Your task to perform on an android device: Play the last video I watched on Youtube Image 0: 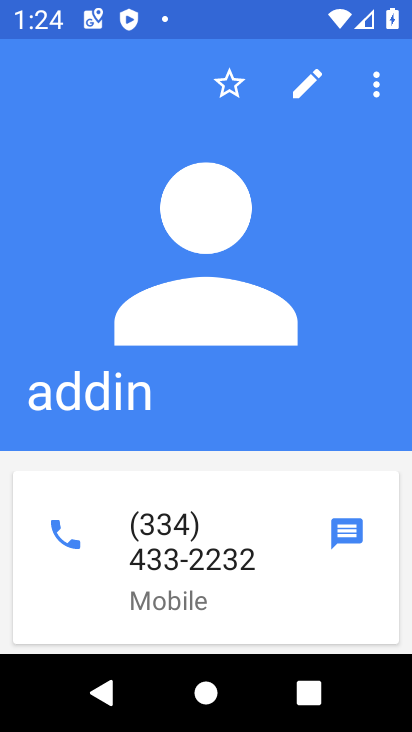
Step 0: press home button
Your task to perform on an android device: Play the last video I watched on Youtube Image 1: 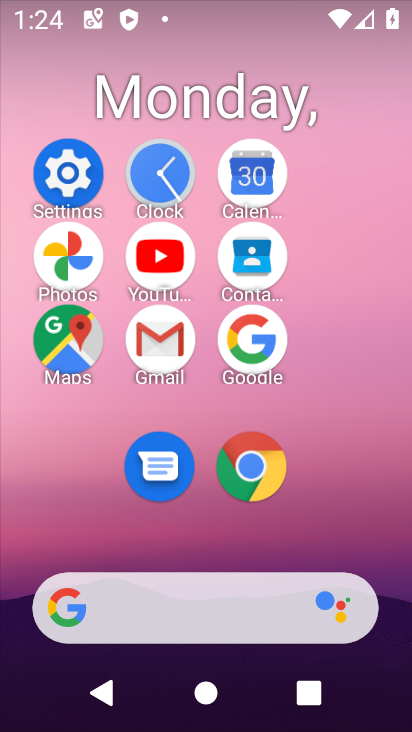
Step 1: click (157, 246)
Your task to perform on an android device: Play the last video I watched on Youtube Image 2: 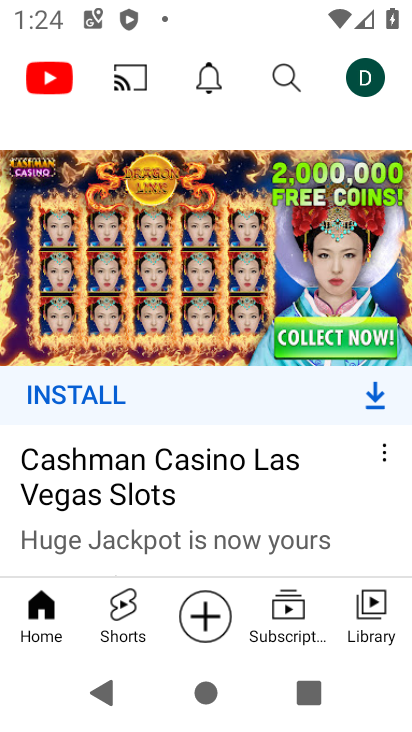
Step 2: click (386, 636)
Your task to perform on an android device: Play the last video I watched on Youtube Image 3: 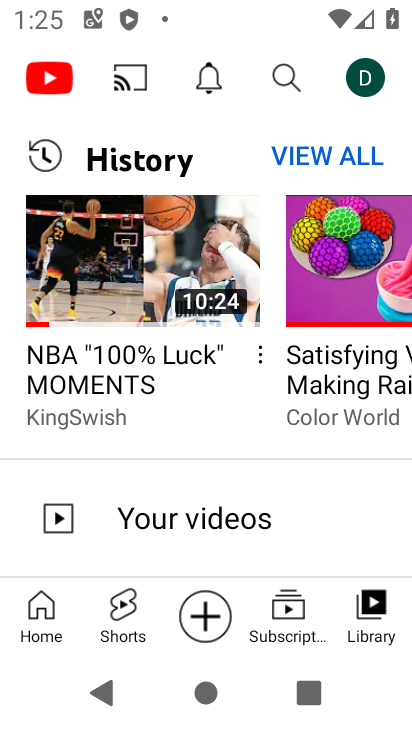
Step 3: drag from (271, 488) to (229, 350)
Your task to perform on an android device: Play the last video I watched on Youtube Image 4: 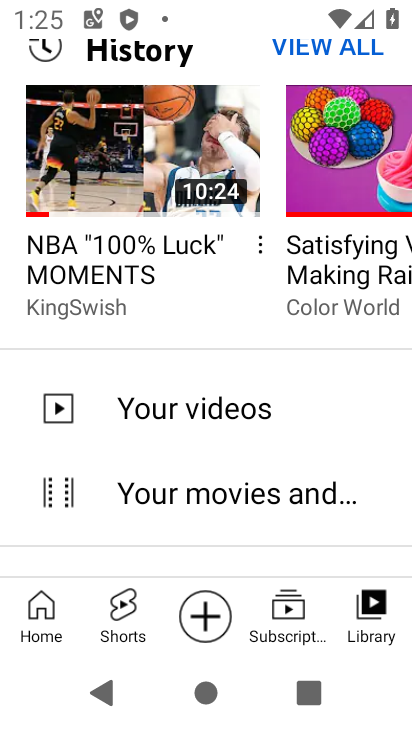
Step 4: click (319, 57)
Your task to perform on an android device: Play the last video I watched on Youtube Image 5: 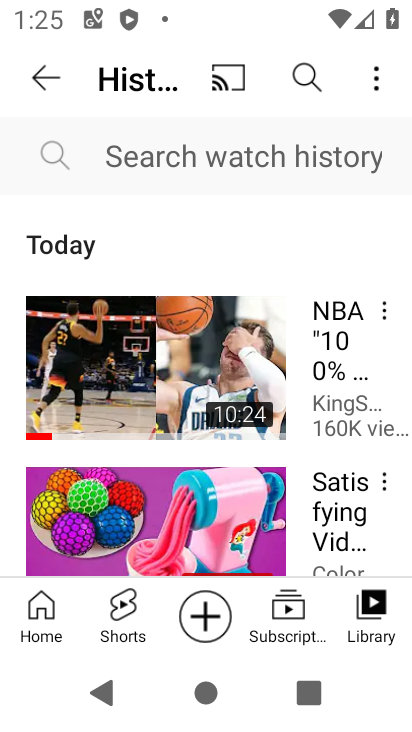
Step 5: task complete